Your task to perform on an android device: Show me popular games on the Play Store Image 0: 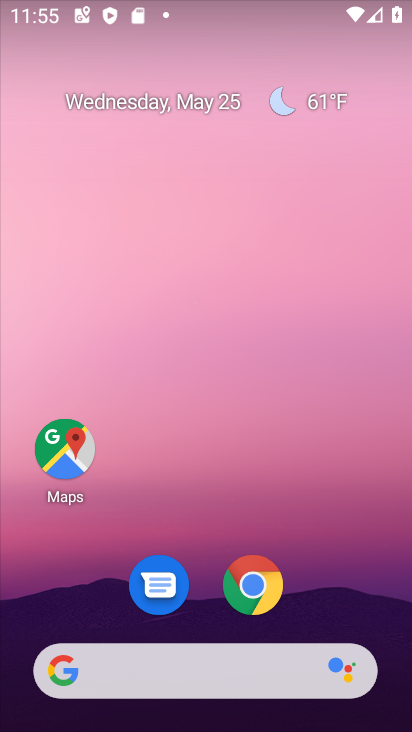
Step 0: drag from (171, 489) to (223, 52)
Your task to perform on an android device: Show me popular games on the Play Store Image 1: 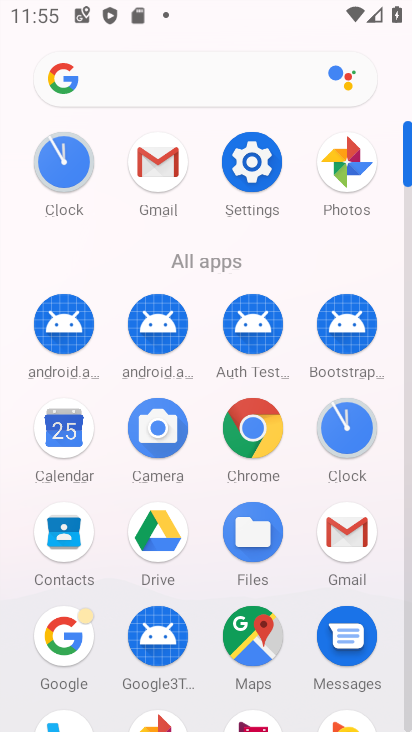
Step 1: drag from (106, 558) to (151, 241)
Your task to perform on an android device: Show me popular games on the Play Store Image 2: 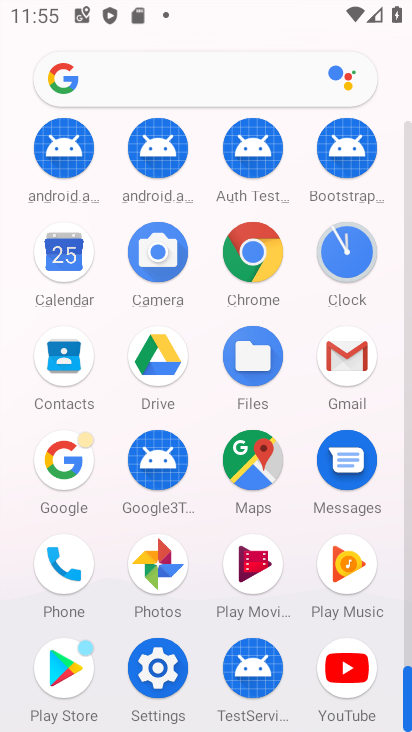
Step 2: click (67, 655)
Your task to perform on an android device: Show me popular games on the Play Store Image 3: 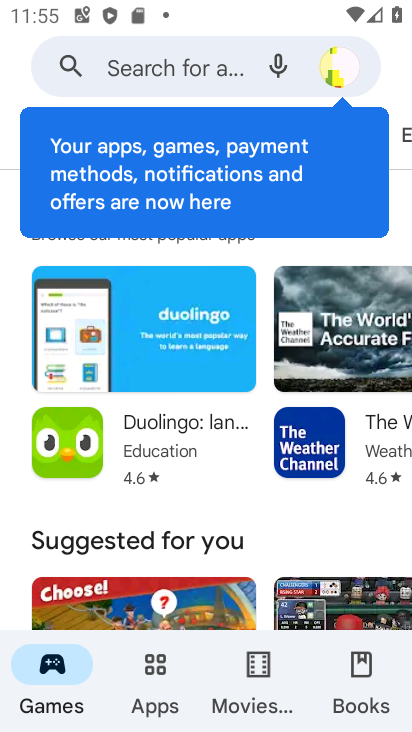
Step 3: drag from (262, 520) to (318, 125)
Your task to perform on an android device: Show me popular games on the Play Store Image 4: 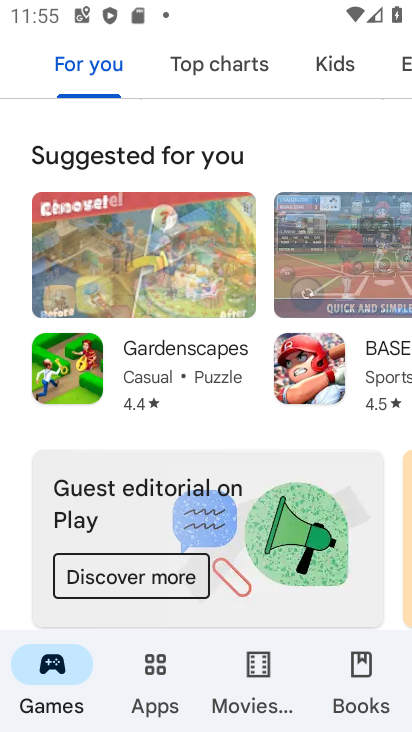
Step 4: drag from (225, 485) to (255, 201)
Your task to perform on an android device: Show me popular games on the Play Store Image 5: 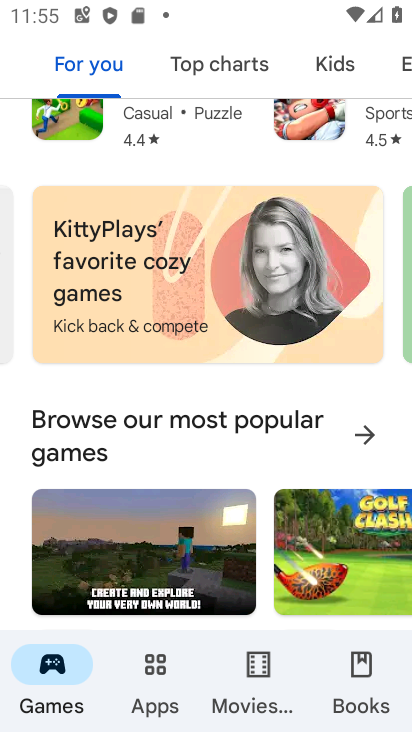
Step 5: click (359, 432)
Your task to perform on an android device: Show me popular games on the Play Store Image 6: 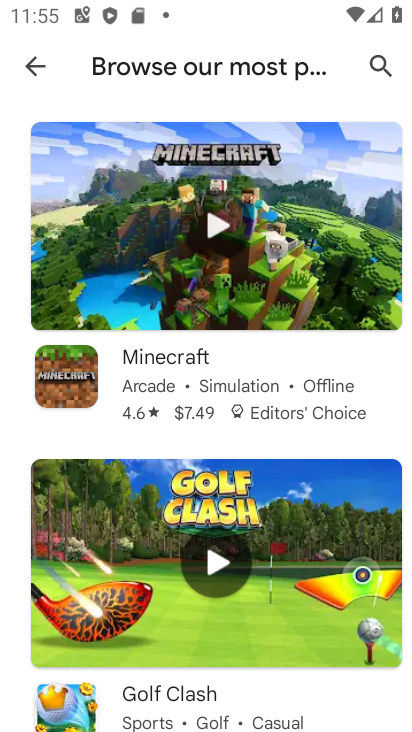
Step 6: task complete